Your task to perform on an android device: Open ESPN.com Image 0: 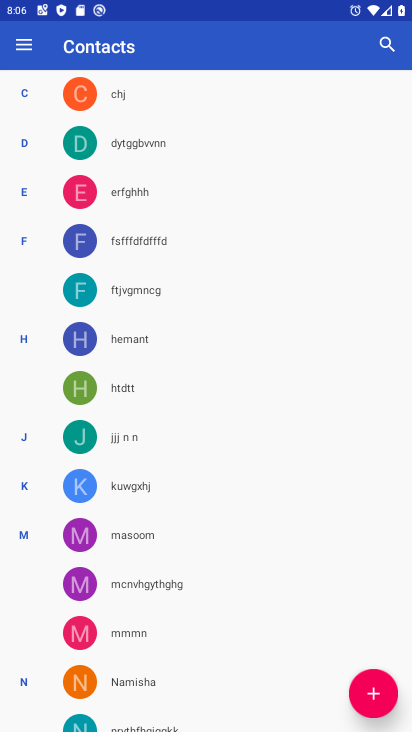
Step 0: press home button
Your task to perform on an android device: Open ESPN.com Image 1: 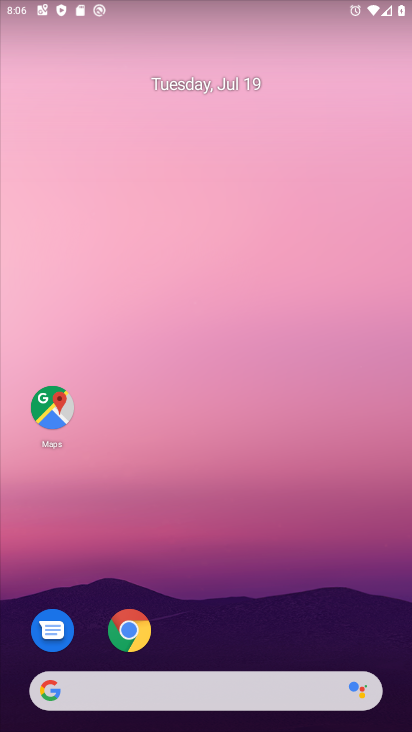
Step 1: click (127, 637)
Your task to perform on an android device: Open ESPN.com Image 2: 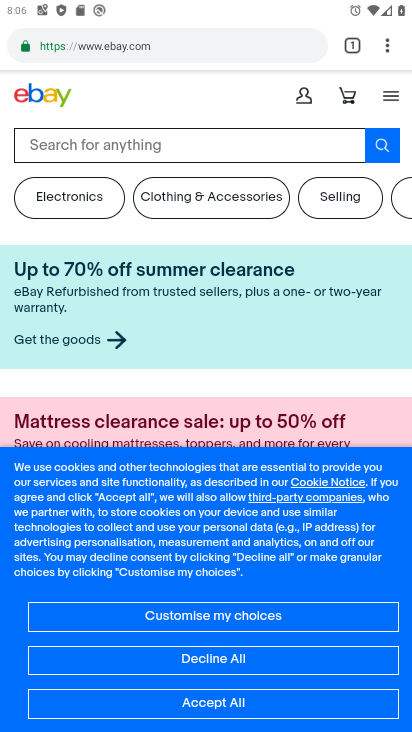
Step 2: click (142, 48)
Your task to perform on an android device: Open ESPN.com Image 3: 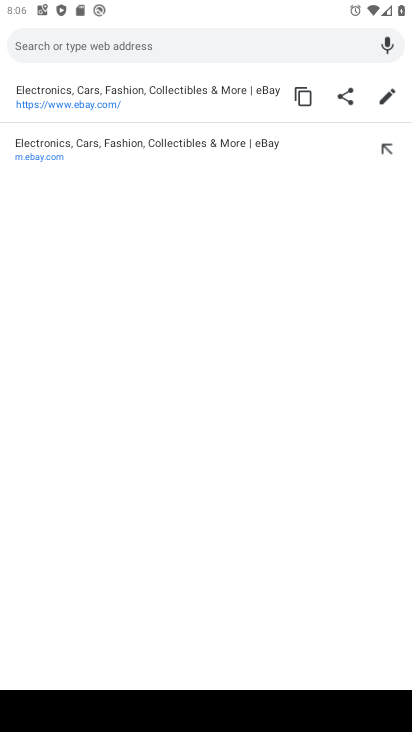
Step 3: type "www.espn.com"
Your task to perform on an android device: Open ESPN.com Image 4: 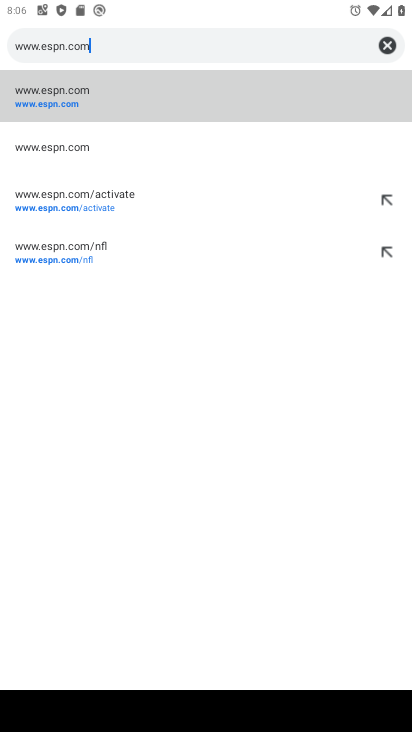
Step 4: click (43, 93)
Your task to perform on an android device: Open ESPN.com Image 5: 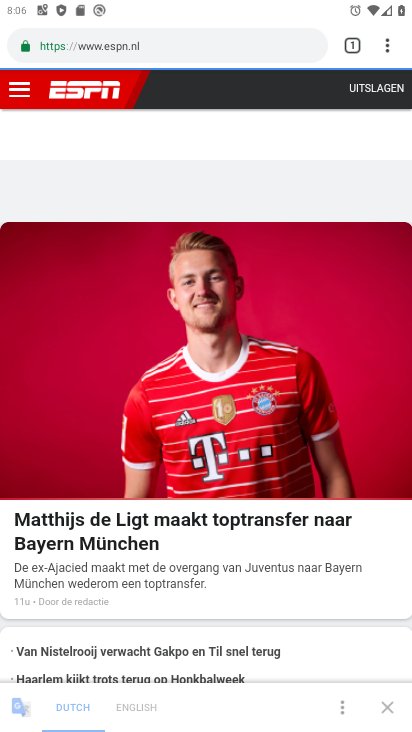
Step 5: task complete